Your task to perform on an android device: turn smart compose on in the gmail app Image 0: 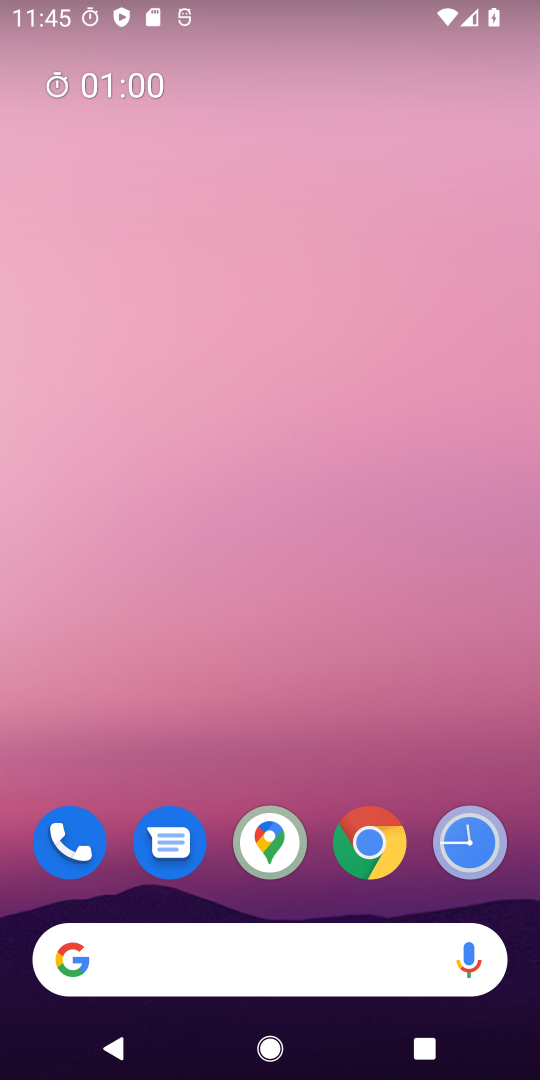
Step 0: drag from (224, 894) to (303, 56)
Your task to perform on an android device: turn smart compose on in the gmail app Image 1: 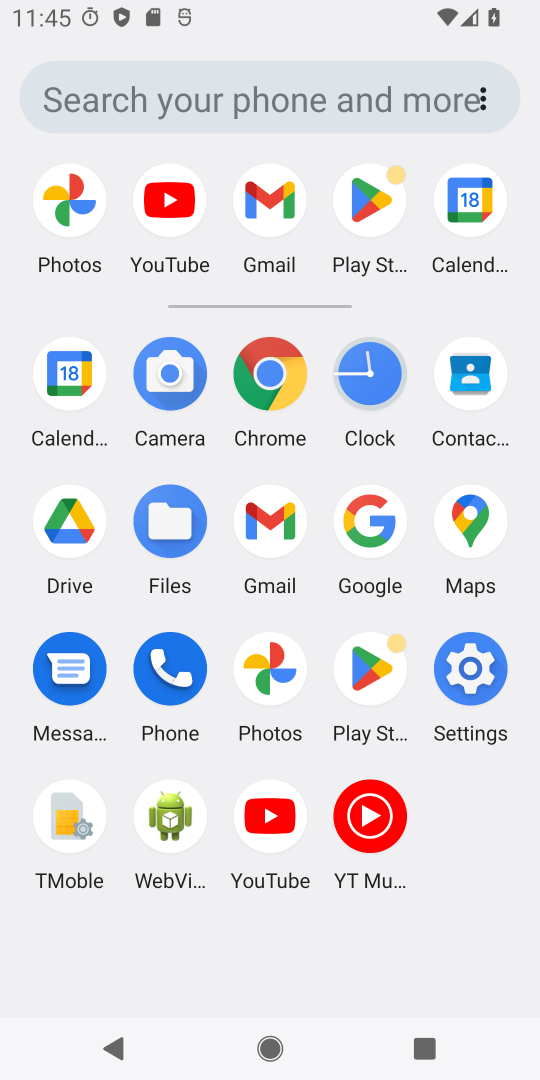
Step 1: click (258, 220)
Your task to perform on an android device: turn smart compose on in the gmail app Image 2: 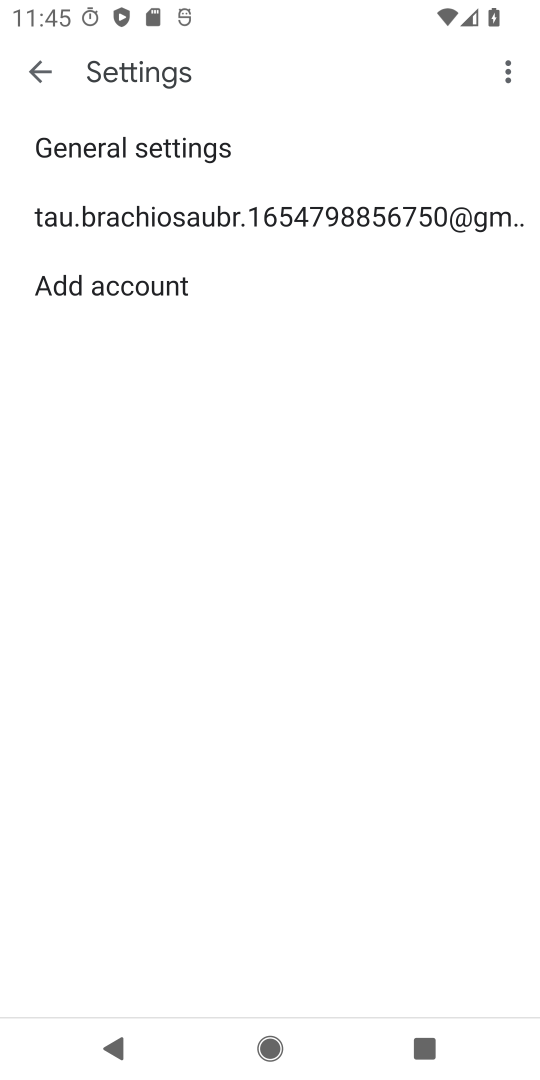
Step 2: click (258, 220)
Your task to perform on an android device: turn smart compose on in the gmail app Image 3: 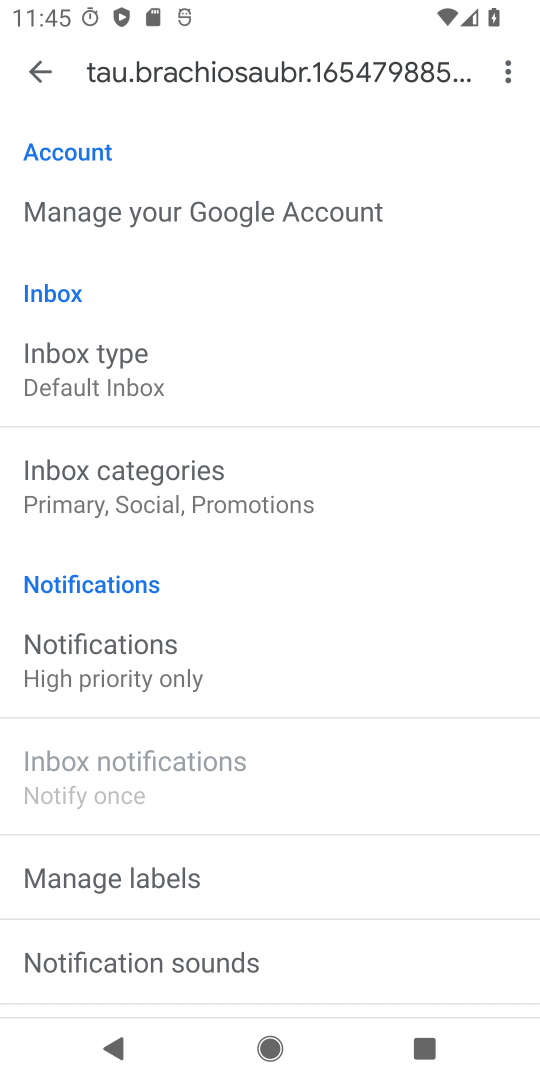
Step 3: task complete